Your task to perform on an android device: check android version Image 0: 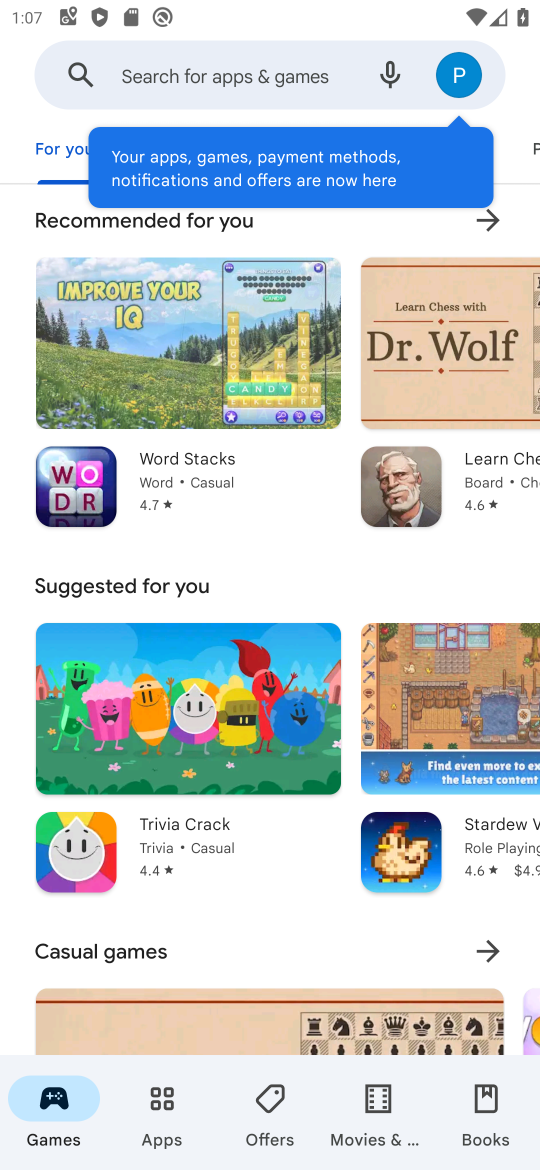
Step 0: press home button
Your task to perform on an android device: check android version Image 1: 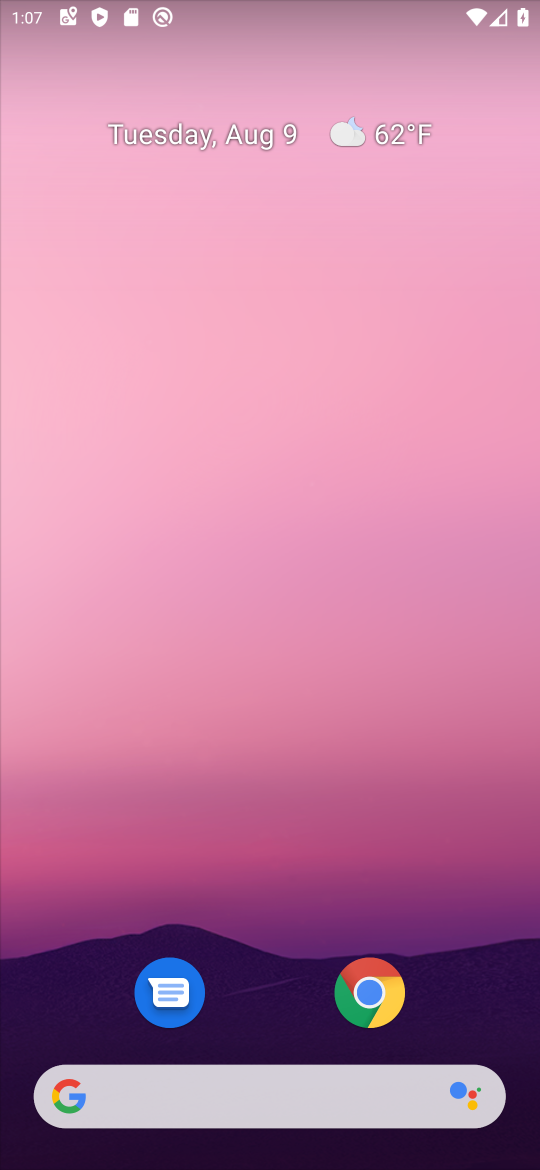
Step 1: drag from (238, 1026) to (272, 271)
Your task to perform on an android device: check android version Image 2: 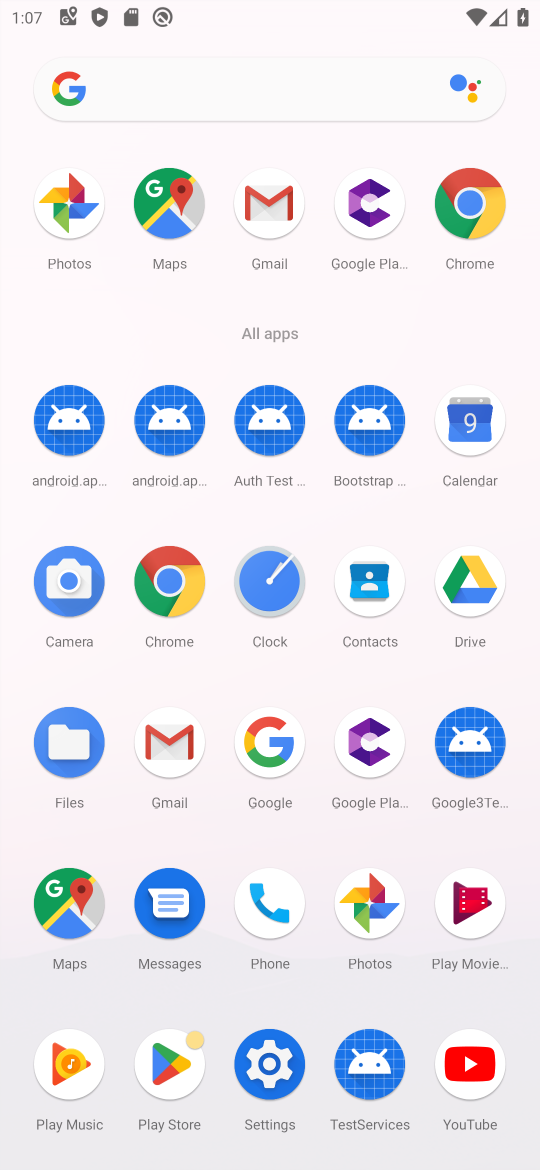
Step 2: click (267, 1088)
Your task to perform on an android device: check android version Image 3: 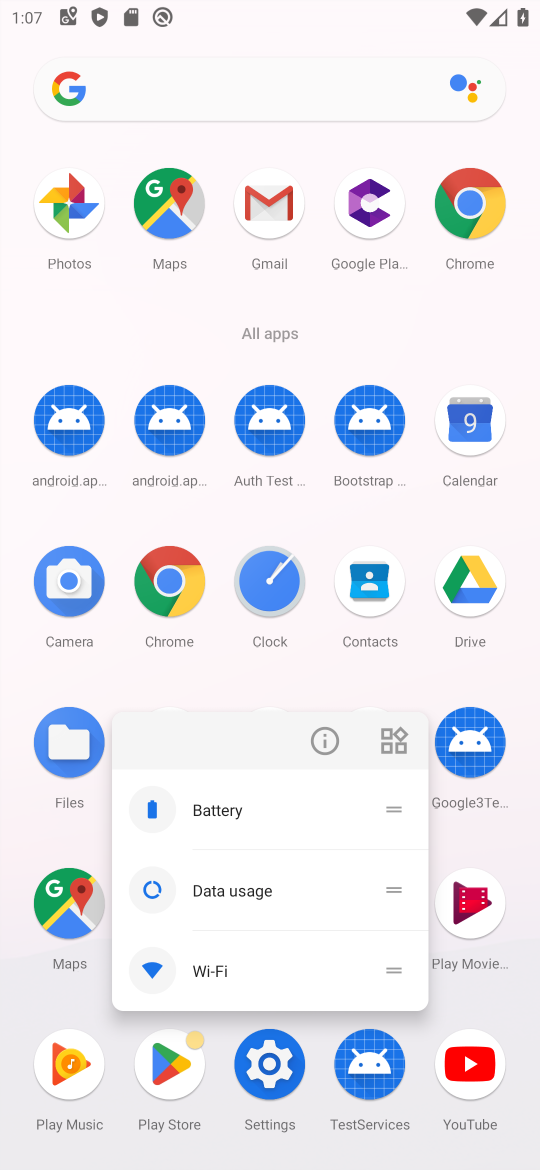
Step 3: click (301, 1060)
Your task to perform on an android device: check android version Image 4: 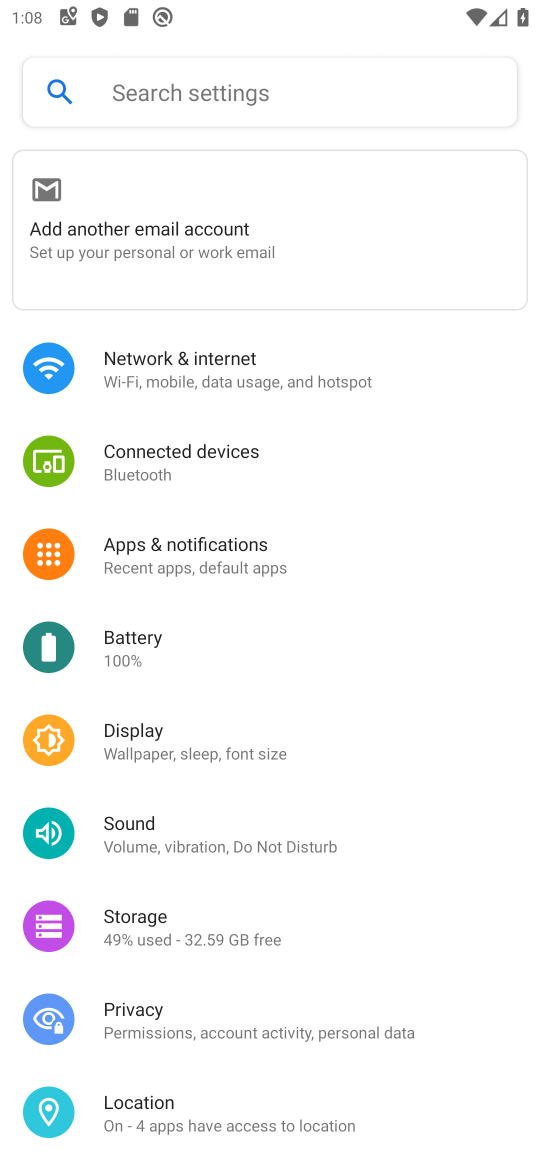
Step 4: drag from (220, 991) to (123, 539)
Your task to perform on an android device: check android version Image 5: 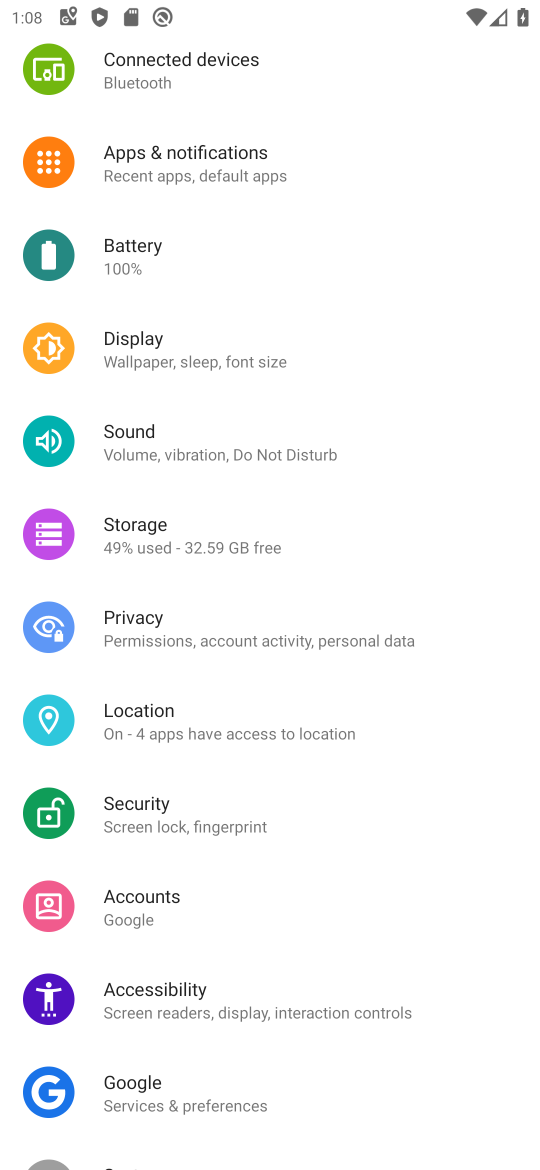
Step 5: drag from (201, 1017) to (145, 393)
Your task to perform on an android device: check android version Image 6: 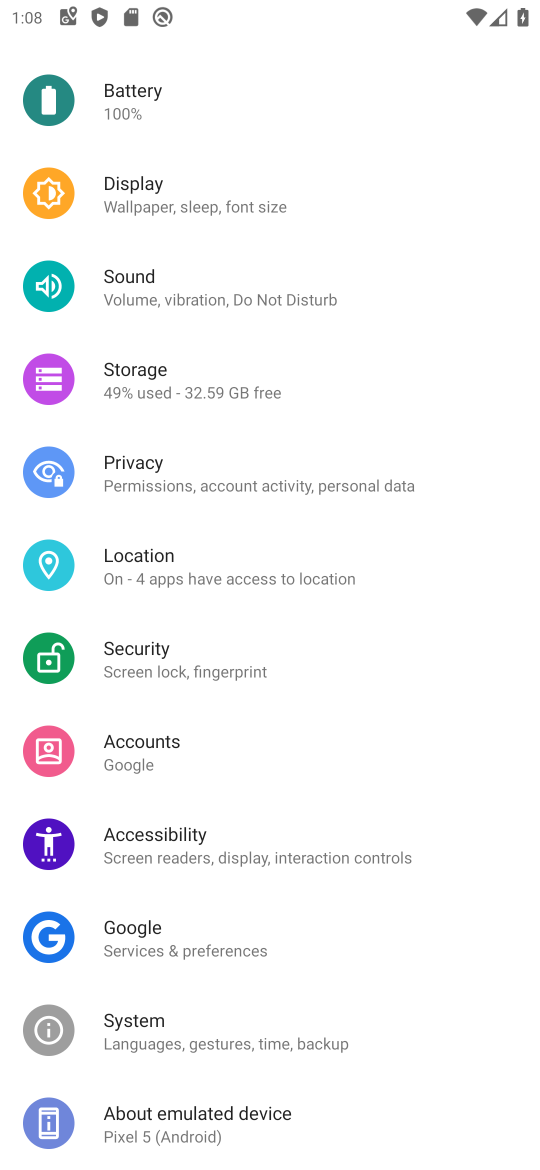
Step 6: click (237, 1104)
Your task to perform on an android device: check android version Image 7: 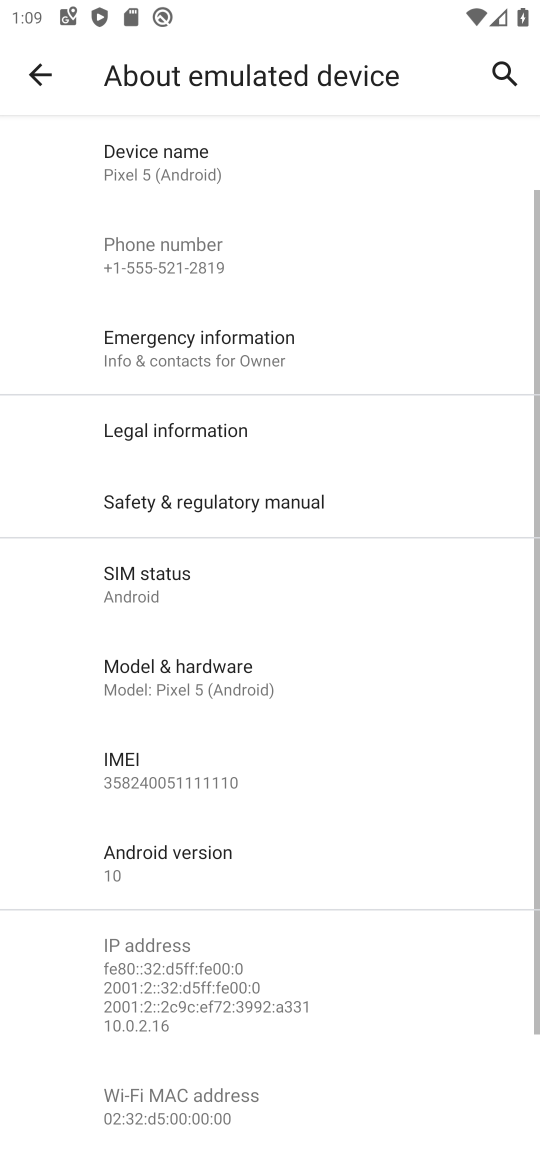
Step 7: click (182, 865)
Your task to perform on an android device: check android version Image 8: 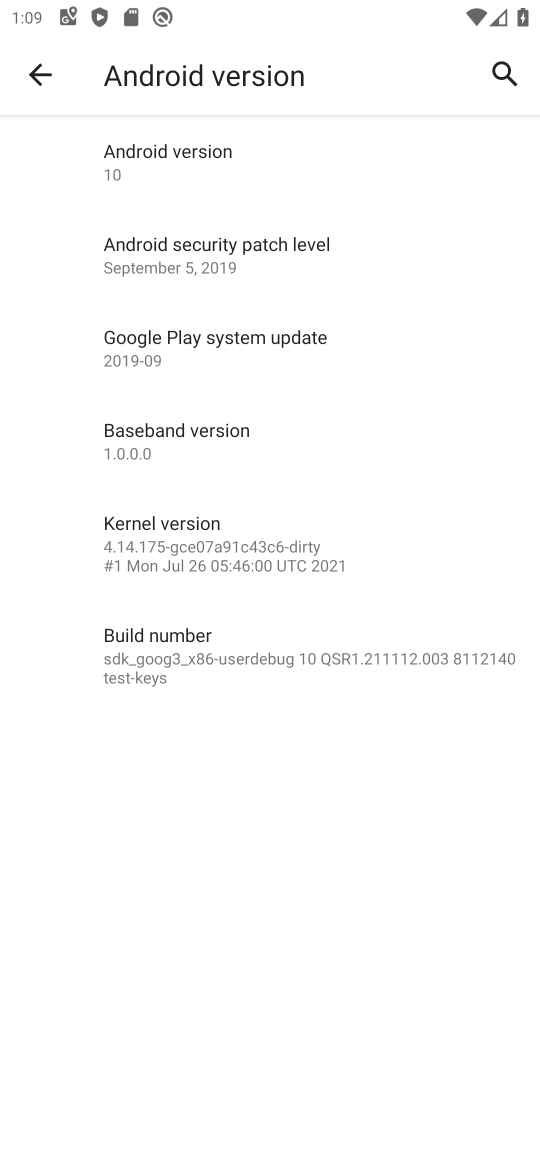
Step 8: task complete